Your task to perform on an android device: toggle location history Image 0: 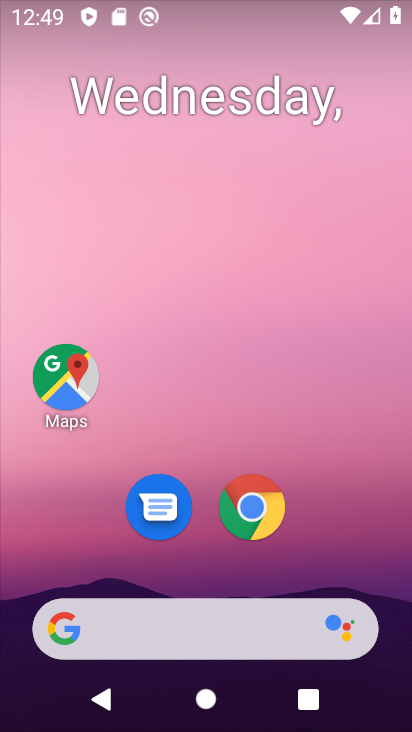
Step 0: drag from (330, 528) to (324, 98)
Your task to perform on an android device: toggle location history Image 1: 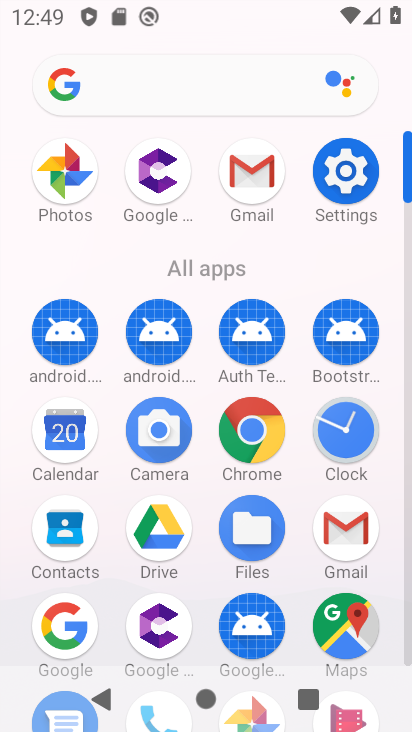
Step 1: click (349, 181)
Your task to perform on an android device: toggle location history Image 2: 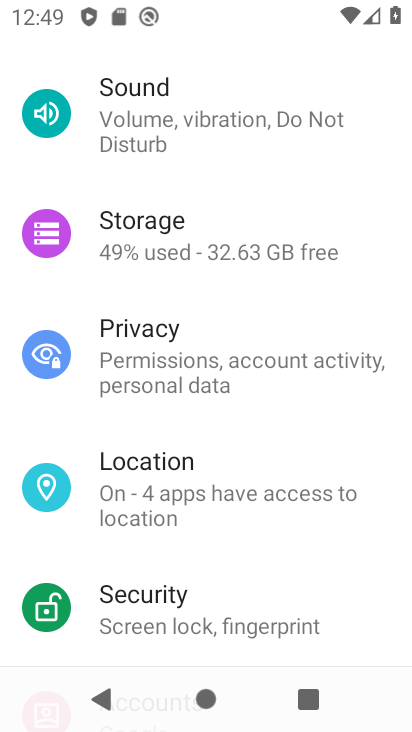
Step 2: click (161, 470)
Your task to perform on an android device: toggle location history Image 3: 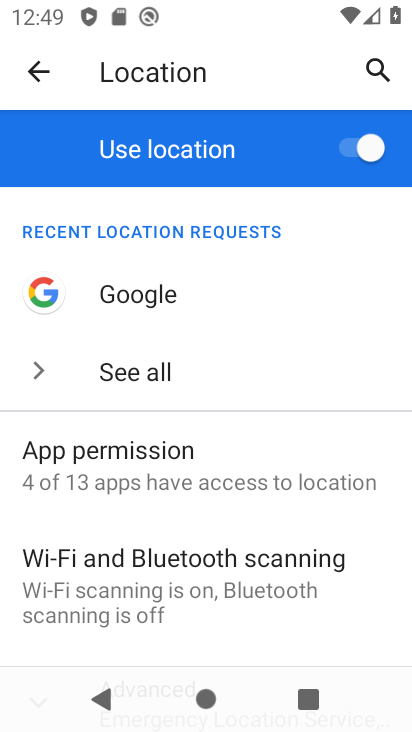
Step 3: drag from (173, 521) to (195, 241)
Your task to perform on an android device: toggle location history Image 4: 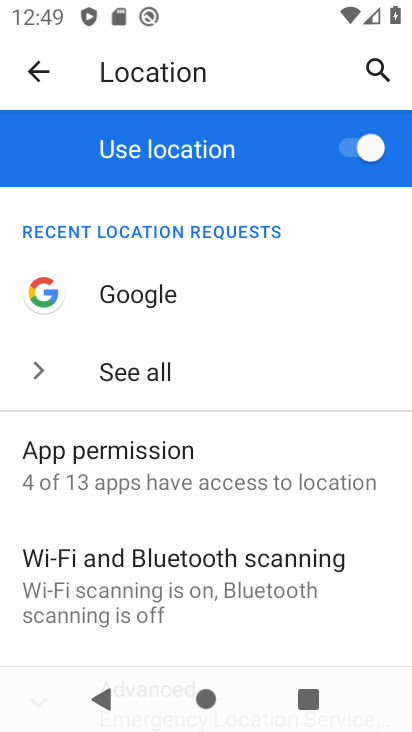
Step 4: drag from (237, 597) to (255, 268)
Your task to perform on an android device: toggle location history Image 5: 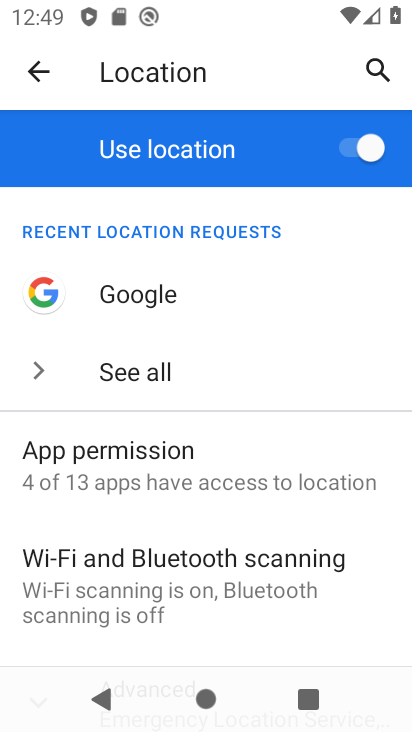
Step 5: drag from (117, 565) to (116, 251)
Your task to perform on an android device: toggle location history Image 6: 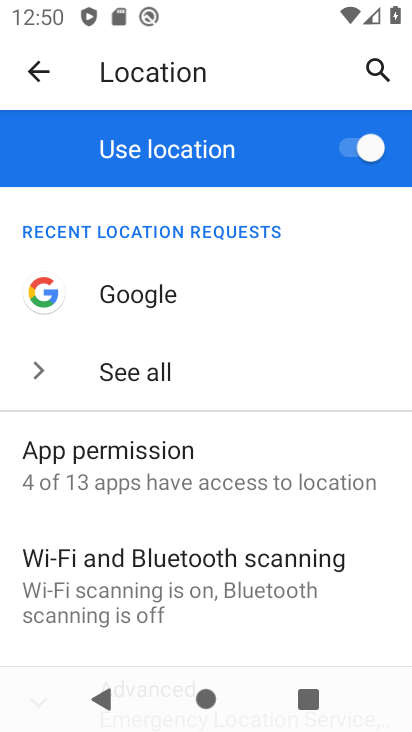
Step 6: drag from (149, 558) to (191, 236)
Your task to perform on an android device: toggle location history Image 7: 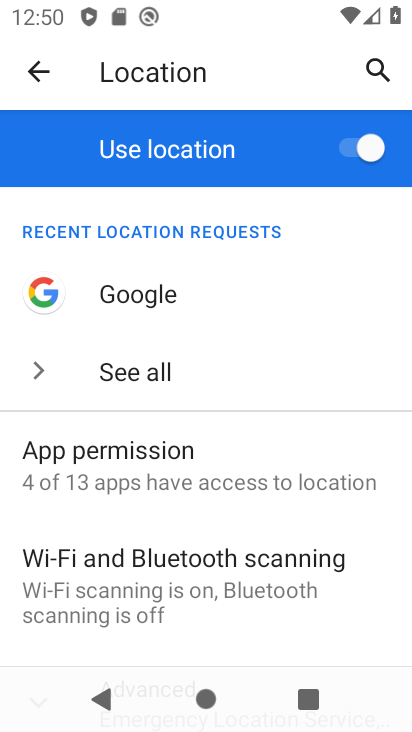
Step 7: drag from (221, 532) to (168, 324)
Your task to perform on an android device: toggle location history Image 8: 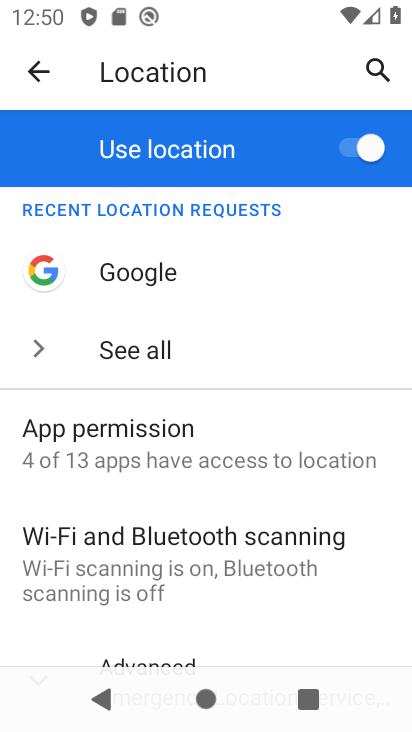
Step 8: drag from (220, 534) to (224, 301)
Your task to perform on an android device: toggle location history Image 9: 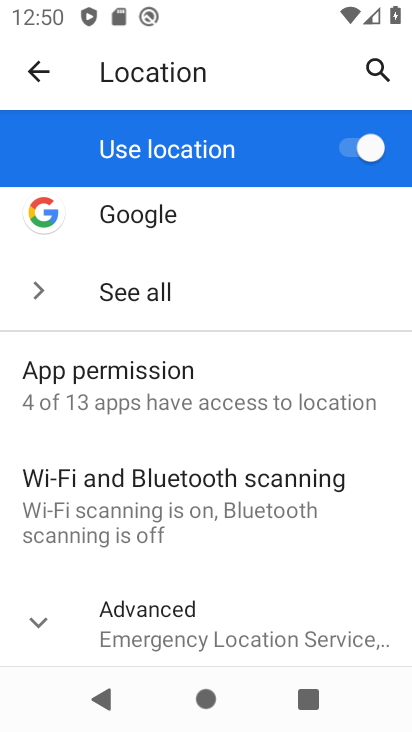
Step 9: drag from (243, 588) to (253, 328)
Your task to perform on an android device: toggle location history Image 10: 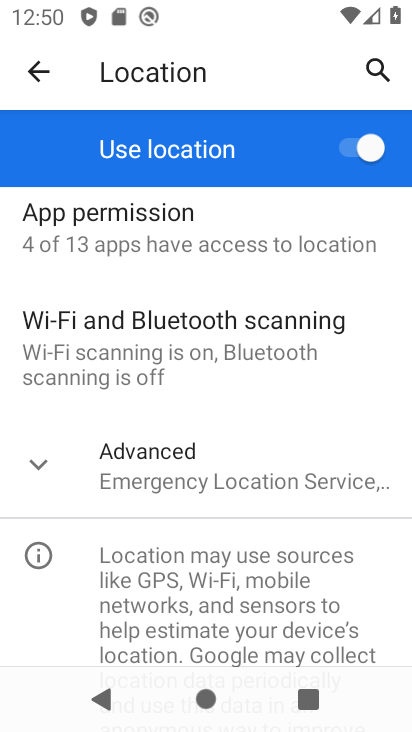
Step 10: click (214, 471)
Your task to perform on an android device: toggle location history Image 11: 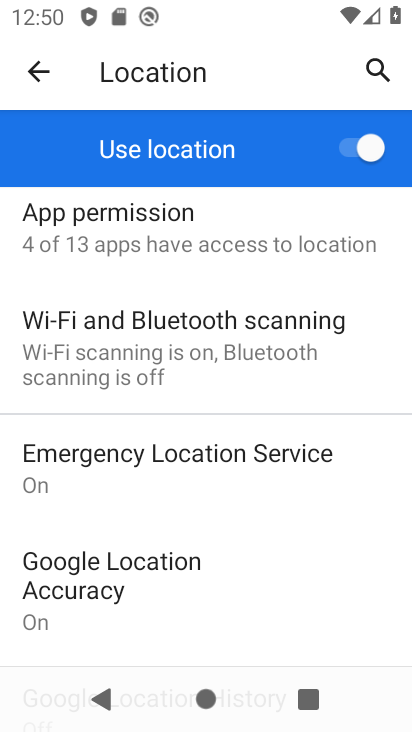
Step 11: drag from (197, 620) to (212, 369)
Your task to perform on an android device: toggle location history Image 12: 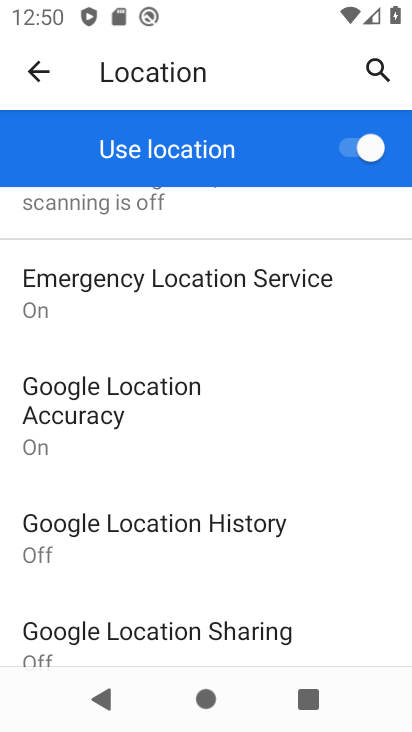
Step 12: click (183, 512)
Your task to perform on an android device: toggle location history Image 13: 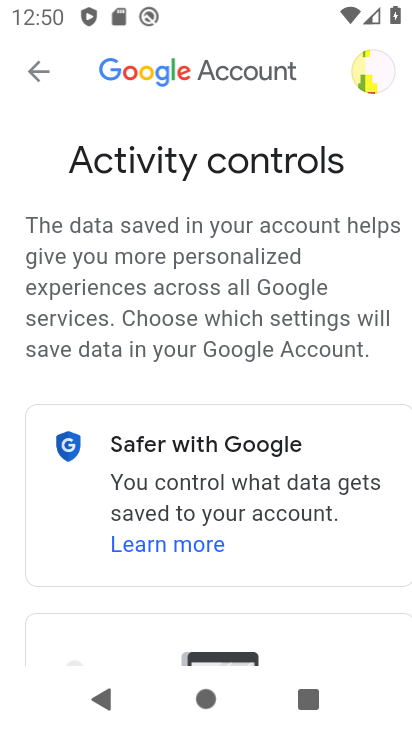
Step 13: drag from (182, 514) to (131, 212)
Your task to perform on an android device: toggle location history Image 14: 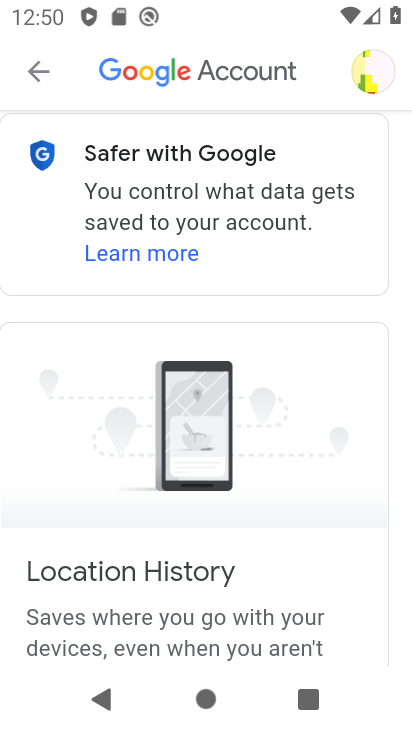
Step 14: drag from (246, 543) to (284, 226)
Your task to perform on an android device: toggle location history Image 15: 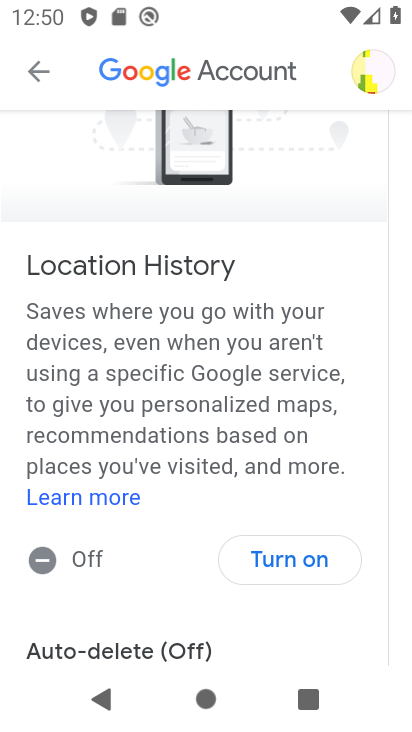
Step 15: drag from (255, 584) to (278, 331)
Your task to perform on an android device: toggle location history Image 16: 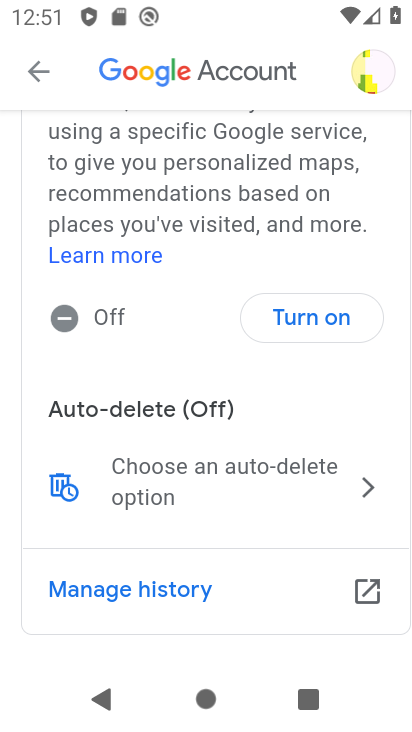
Step 16: click (334, 328)
Your task to perform on an android device: toggle location history Image 17: 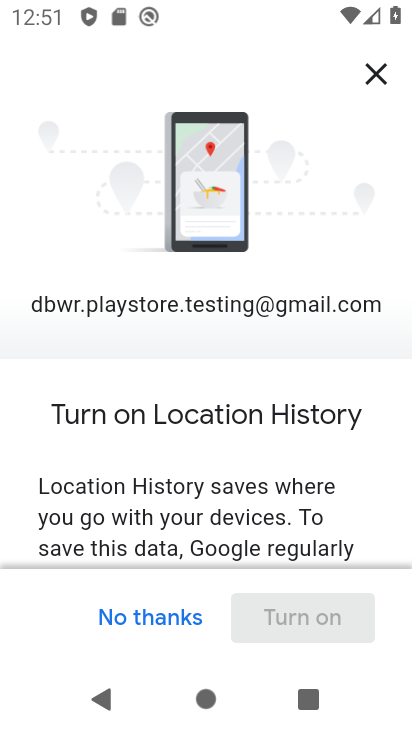
Step 17: drag from (313, 489) to (327, 233)
Your task to perform on an android device: toggle location history Image 18: 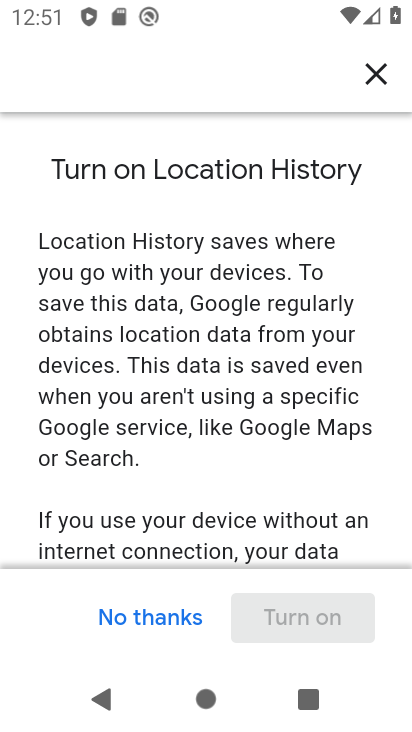
Step 18: drag from (274, 462) to (297, 167)
Your task to perform on an android device: toggle location history Image 19: 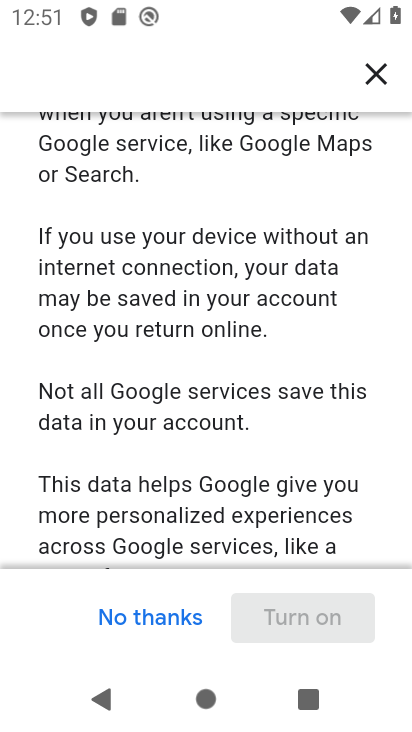
Step 19: drag from (269, 468) to (266, 237)
Your task to perform on an android device: toggle location history Image 20: 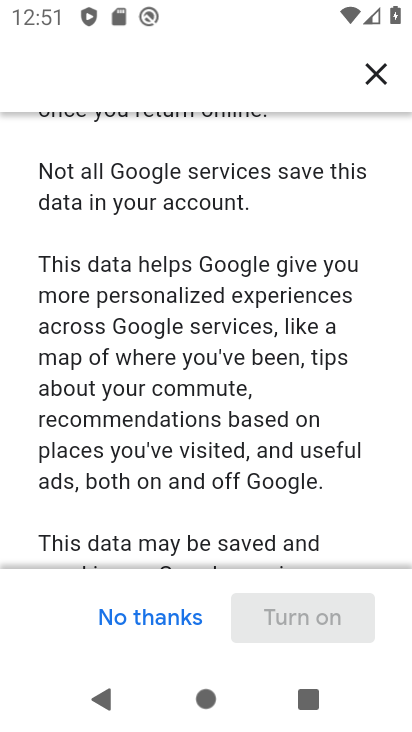
Step 20: drag from (239, 485) to (258, 203)
Your task to perform on an android device: toggle location history Image 21: 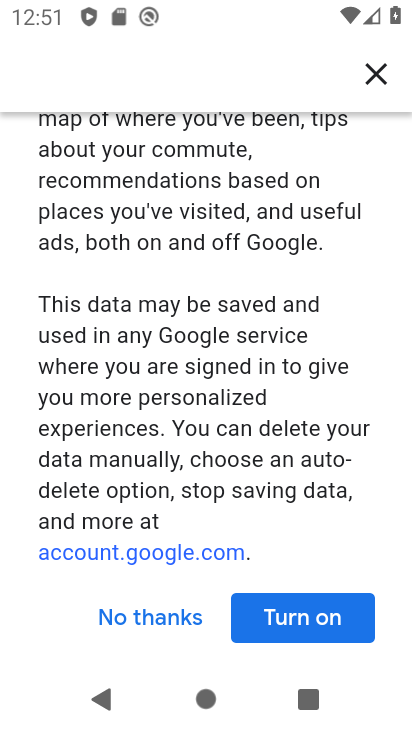
Step 21: drag from (257, 480) to (292, 230)
Your task to perform on an android device: toggle location history Image 22: 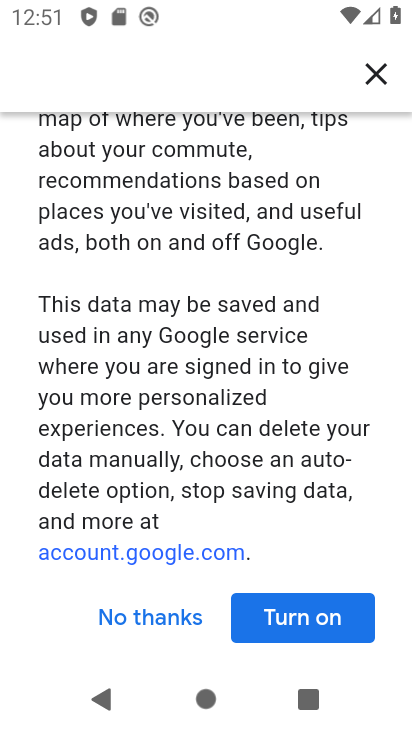
Step 22: click (324, 624)
Your task to perform on an android device: toggle location history Image 23: 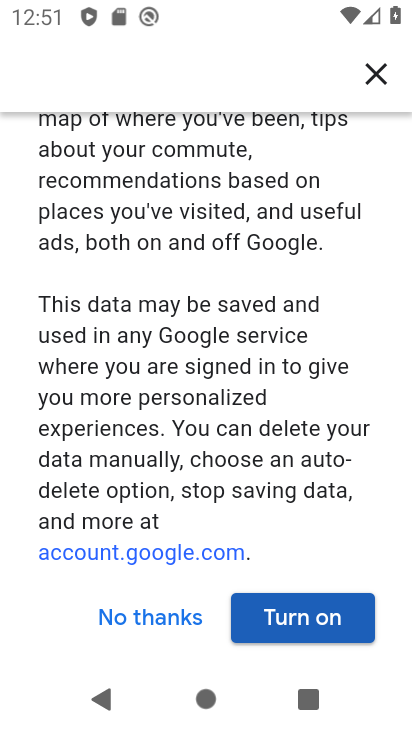
Step 23: click (324, 618)
Your task to perform on an android device: toggle location history Image 24: 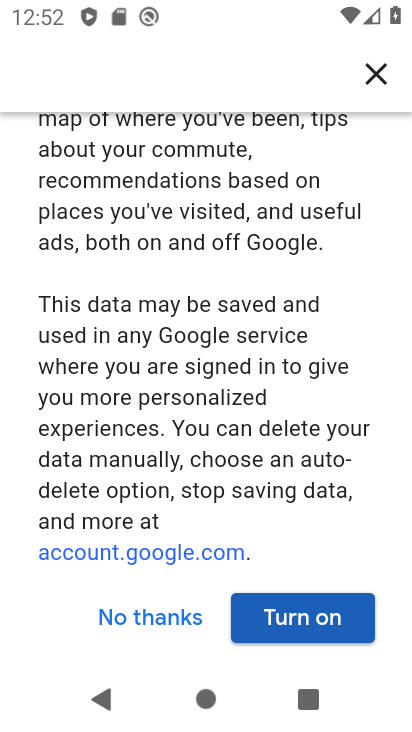
Step 24: click (310, 612)
Your task to perform on an android device: toggle location history Image 25: 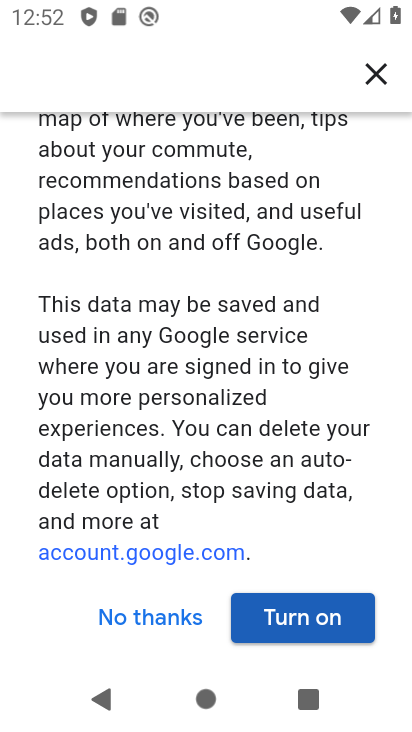
Step 25: click (309, 616)
Your task to perform on an android device: toggle location history Image 26: 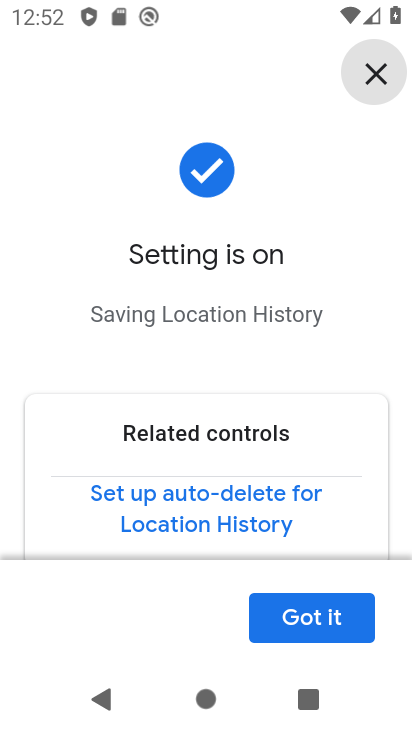
Step 26: click (309, 616)
Your task to perform on an android device: toggle location history Image 27: 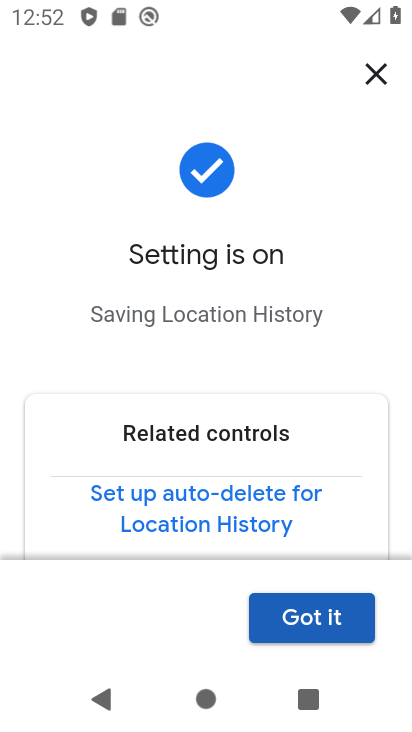
Step 27: task complete